Your task to perform on an android device: snooze an email in the gmail app Image 0: 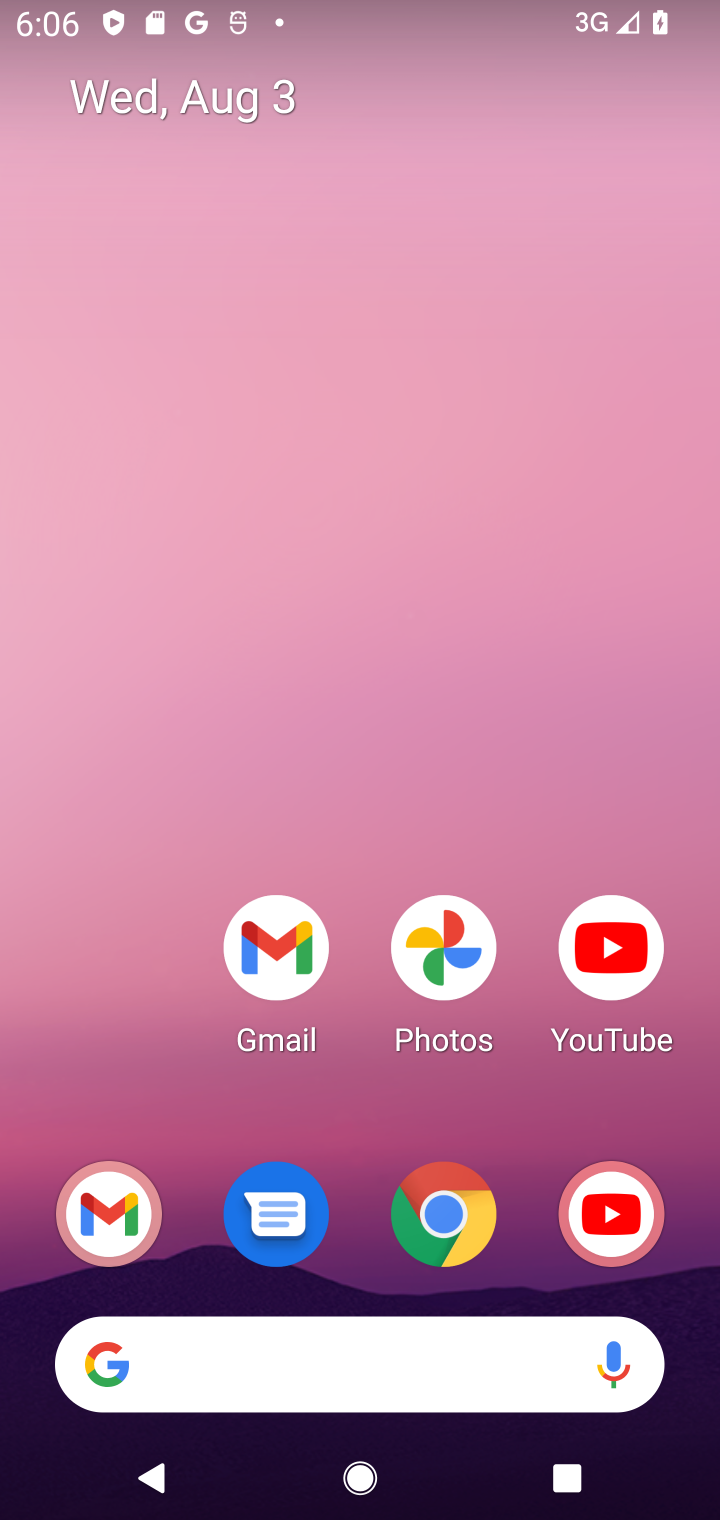
Step 0: click (286, 946)
Your task to perform on an android device: snooze an email in the gmail app Image 1: 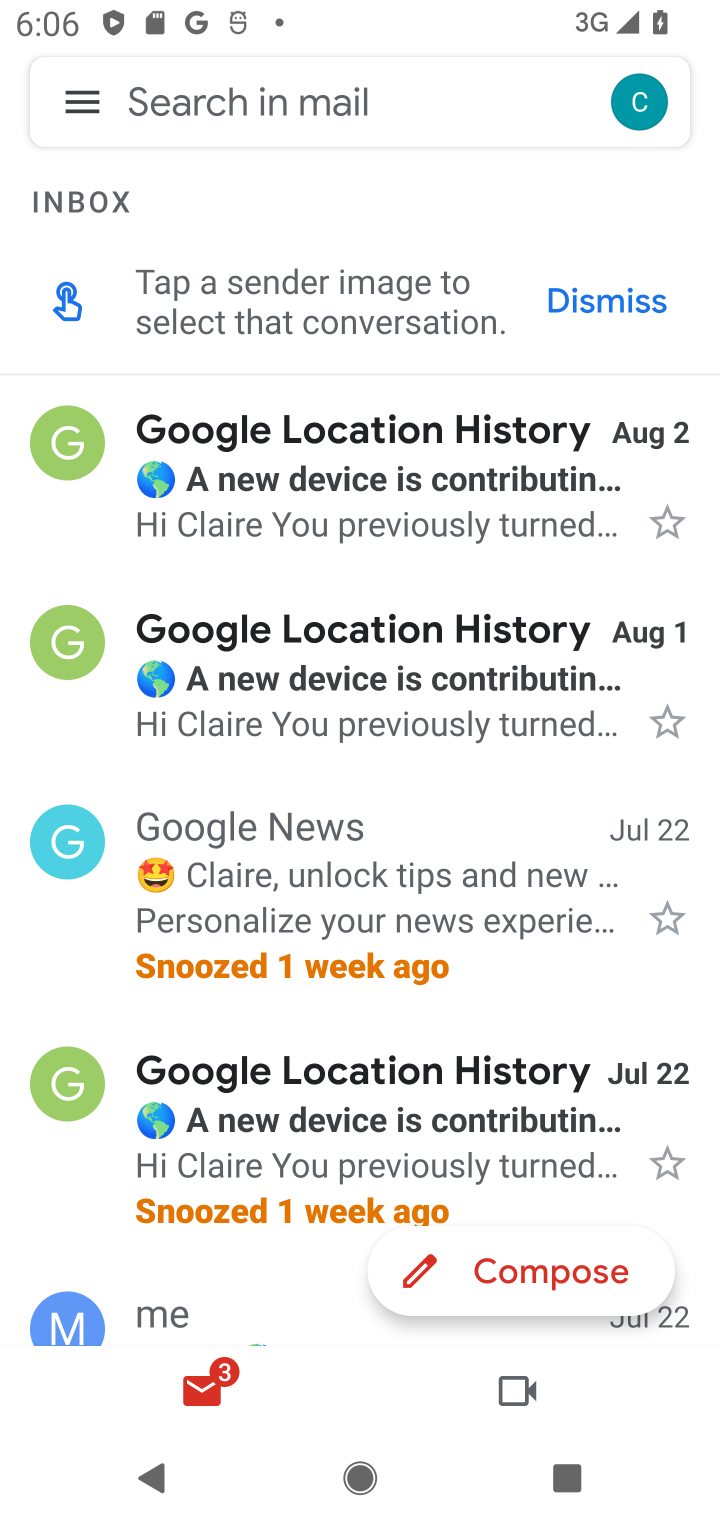
Step 1: click (337, 451)
Your task to perform on an android device: snooze an email in the gmail app Image 2: 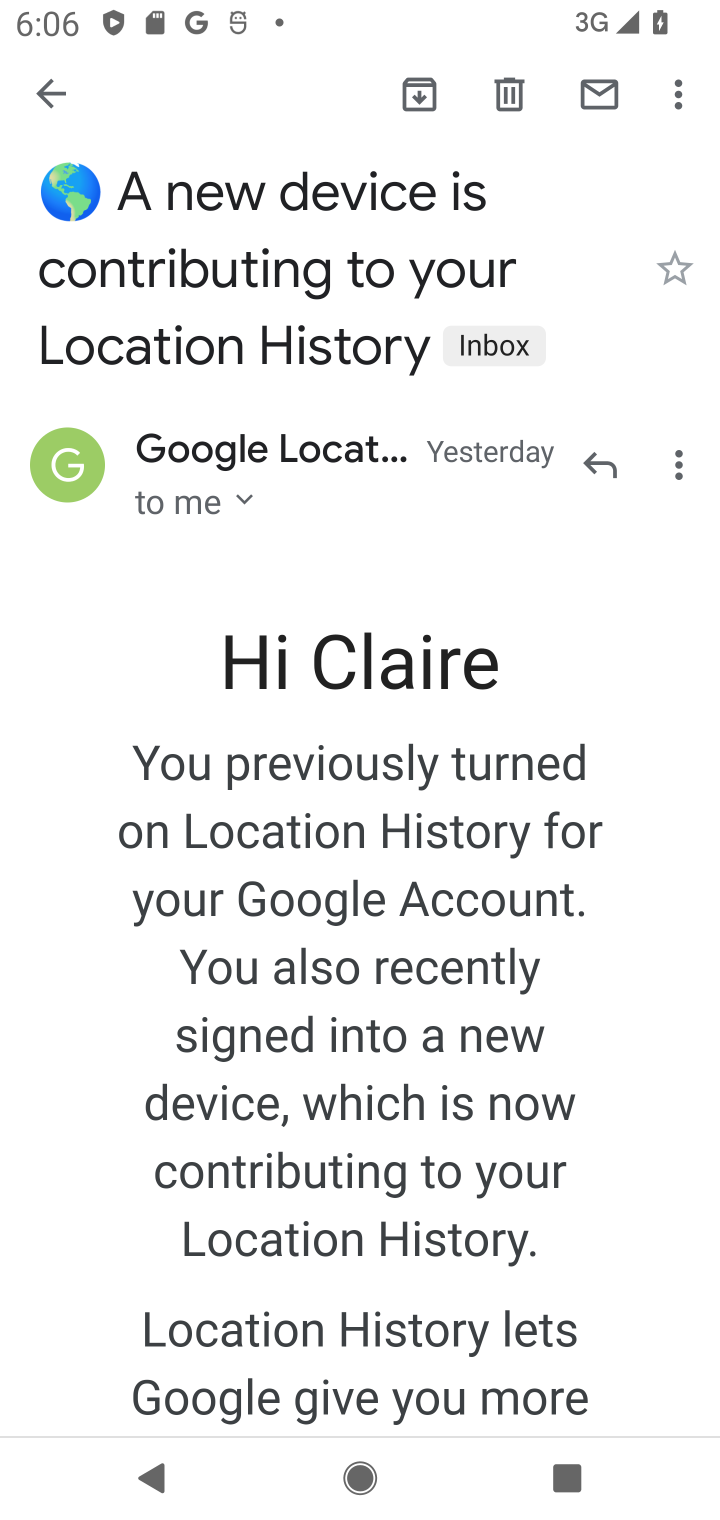
Step 2: click (671, 85)
Your task to perform on an android device: snooze an email in the gmail app Image 3: 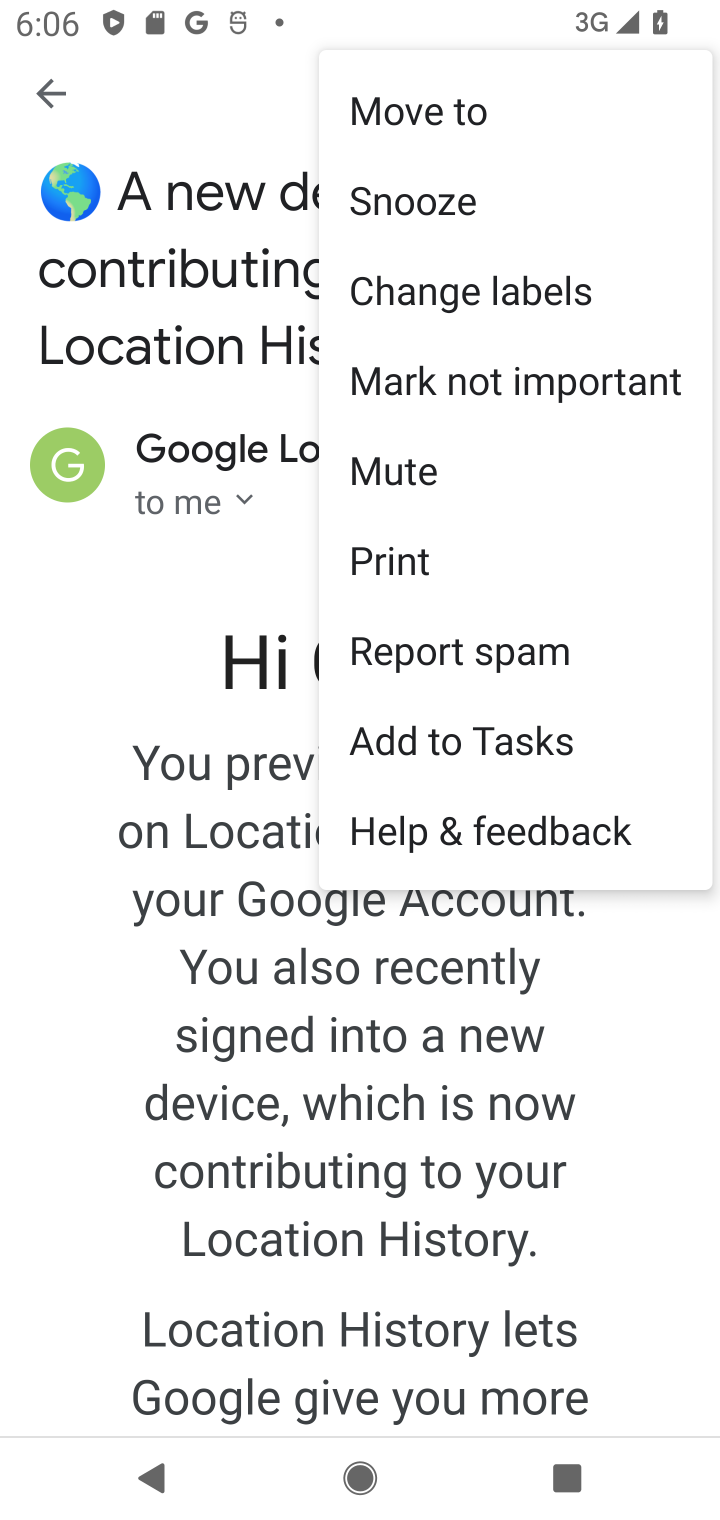
Step 3: click (479, 189)
Your task to perform on an android device: snooze an email in the gmail app Image 4: 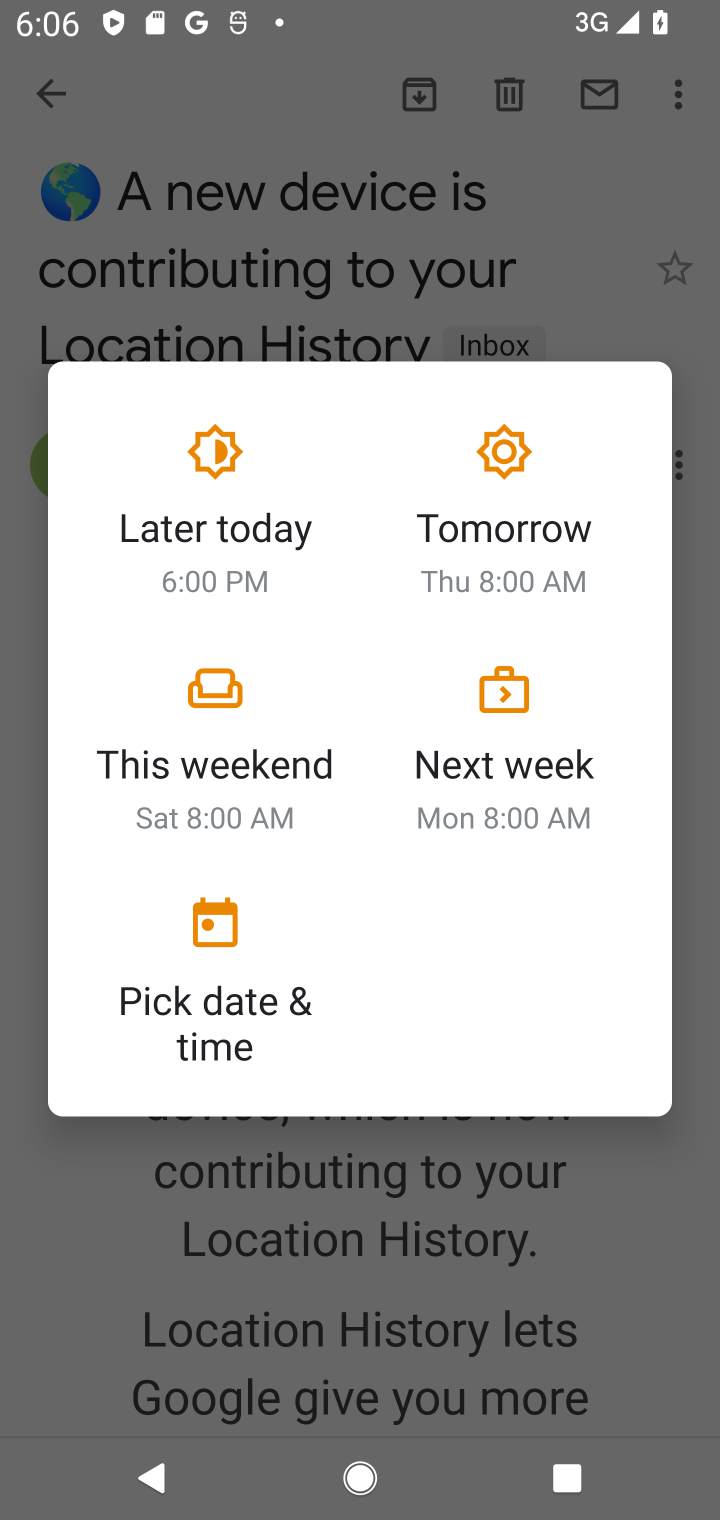
Step 4: click (240, 547)
Your task to perform on an android device: snooze an email in the gmail app Image 5: 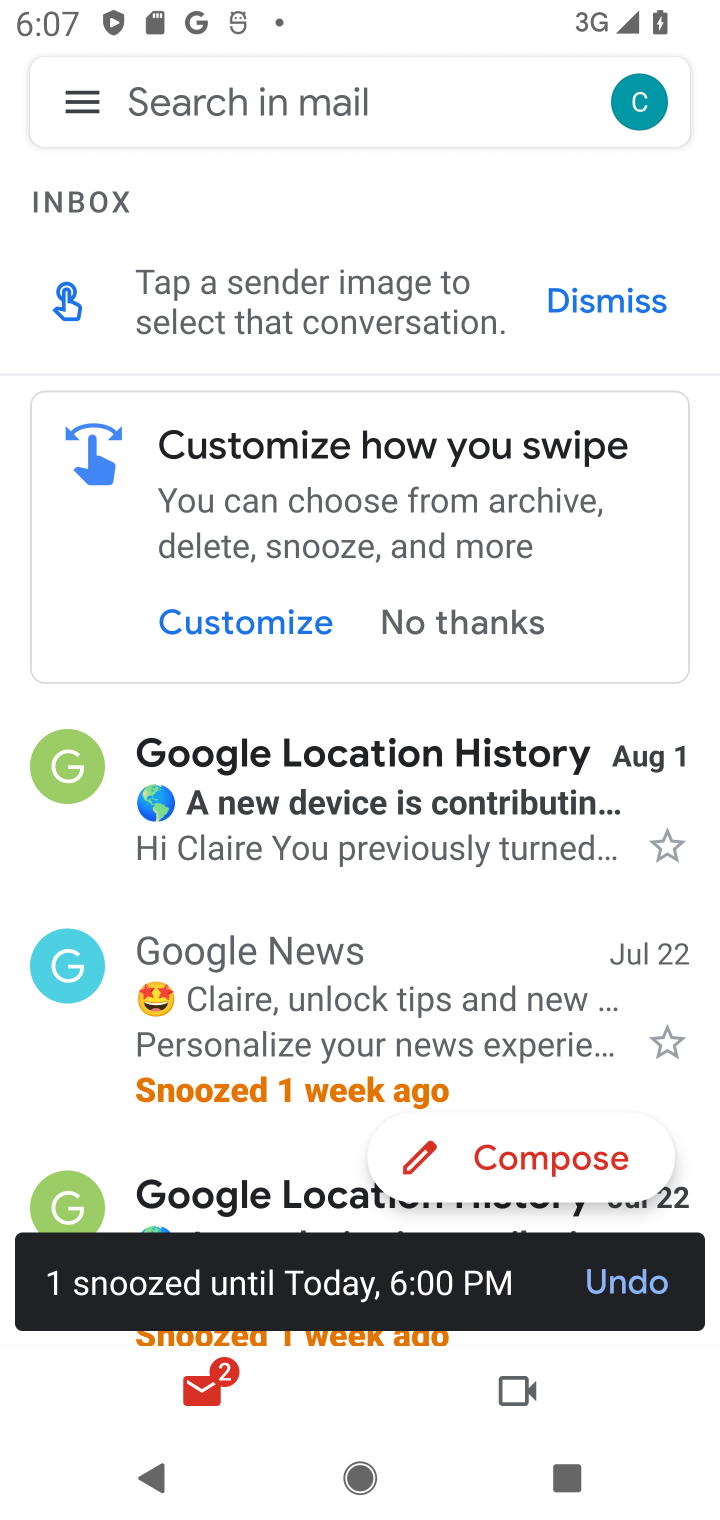
Step 5: task complete